Your task to perform on an android device: set an alarm Image 0: 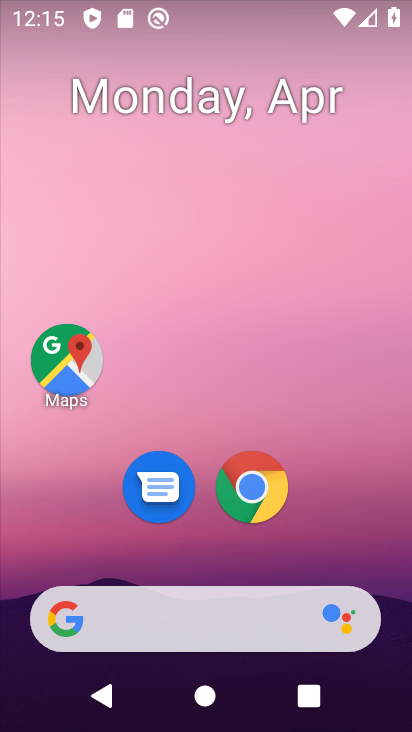
Step 0: drag from (393, 623) to (249, 97)
Your task to perform on an android device: set an alarm Image 1: 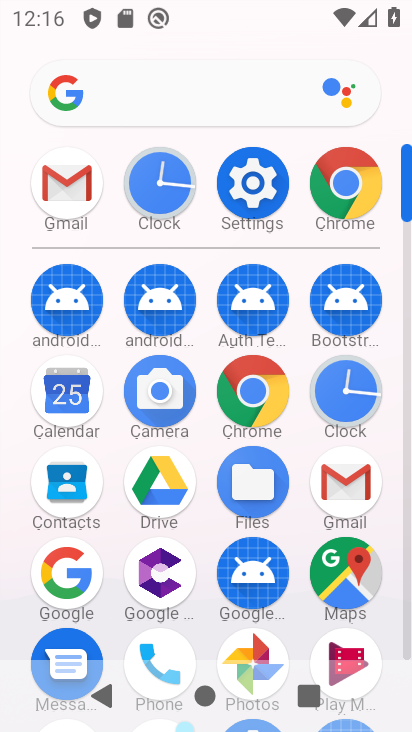
Step 1: click (182, 184)
Your task to perform on an android device: set an alarm Image 2: 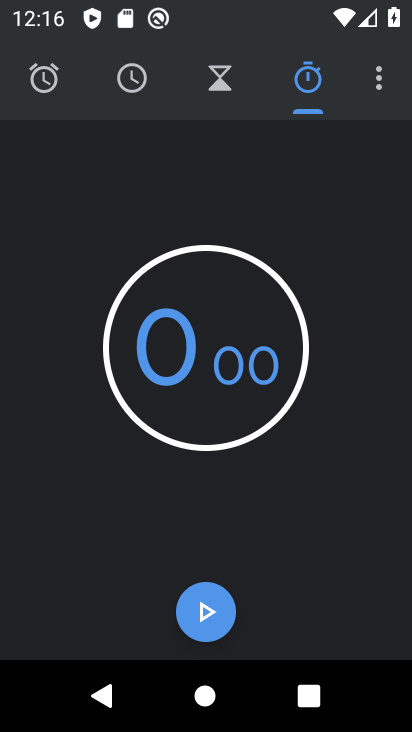
Step 2: click (55, 84)
Your task to perform on an android device: set an alarm Image 3: 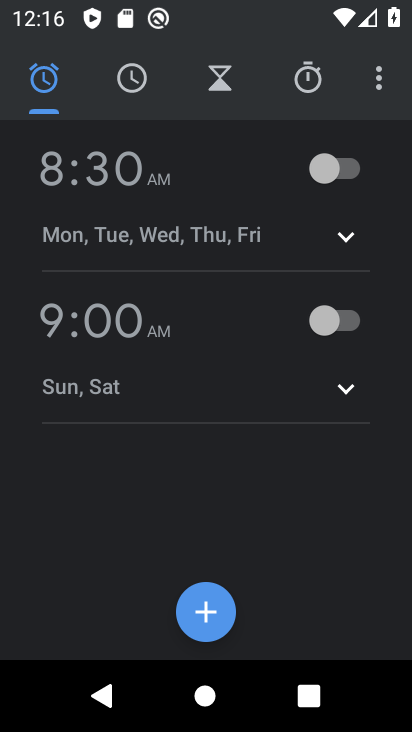
Step 3: task complete